Your task to perform on an android device: Open settings on Google Maps Image 0: 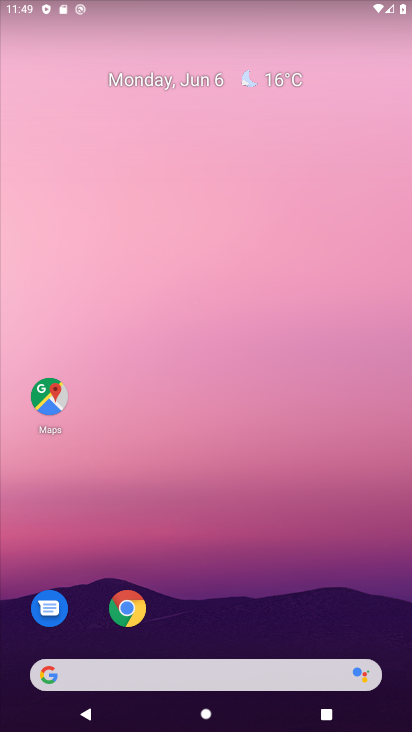
Step 0: click (41, 393)
Your task to perform on an android device: Open settings on Google Maps Image 1: 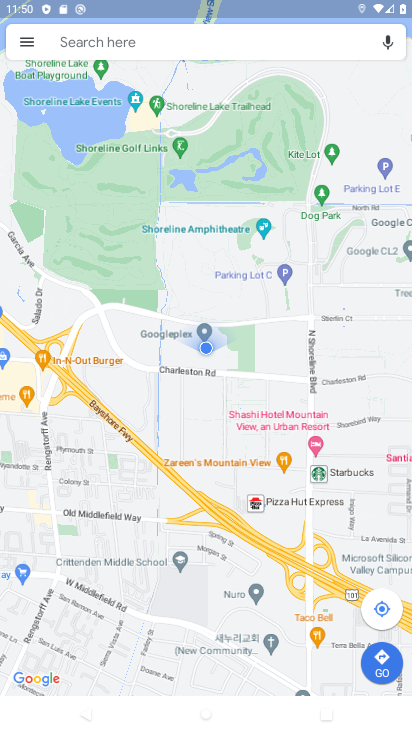
Step 1: click (19, 41)
Your task to perform on an android device: Open settings on Google Maps Image 2: 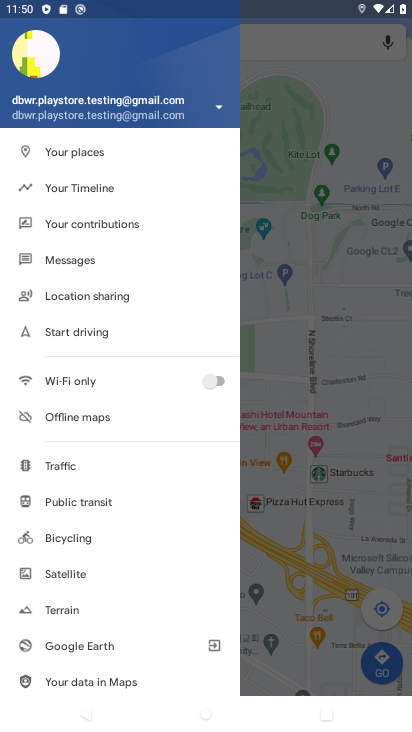
Step 2: drag from (107, 675) to (177, 335)
Your task to perform on an android device: Open settings on Google Maps Image 3: 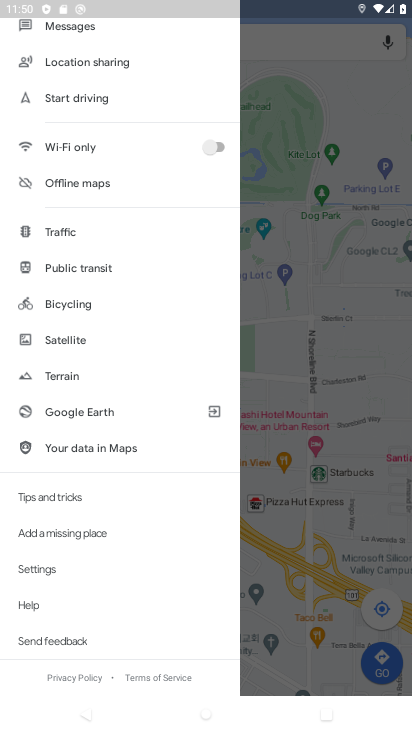
Step 3: click (45, 571)
Your task to perform on an android device: Open settings on Google Maps Image 4: 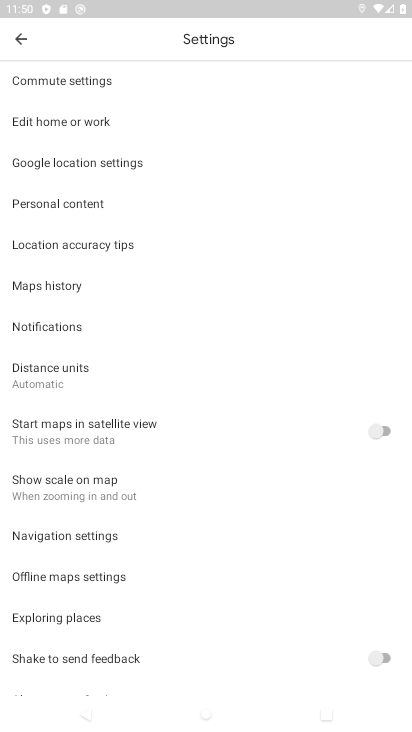
Step 4: task complete